Your task to perform on an android device: turn smart compose on in the gmail app Image 0: 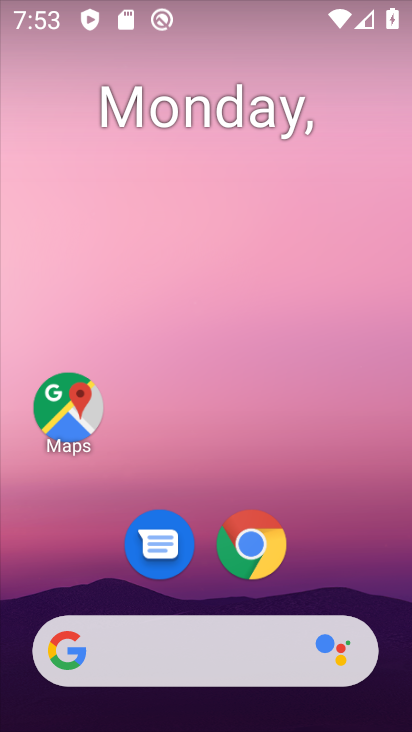
Step 0: drag from (225, 605) to (122, 3)
Your task to perform on an android device: turn smart compose on in the gmail app Image 1: 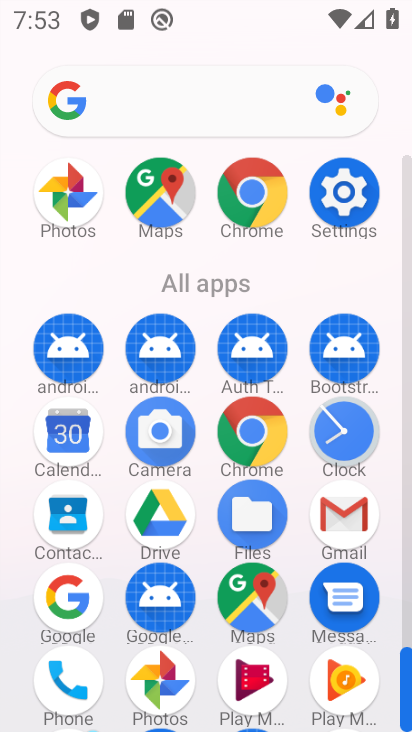
Step 1: click (345, 513)
Your task to perform on an android device: turn smart compose on in the gmail app Image 2: 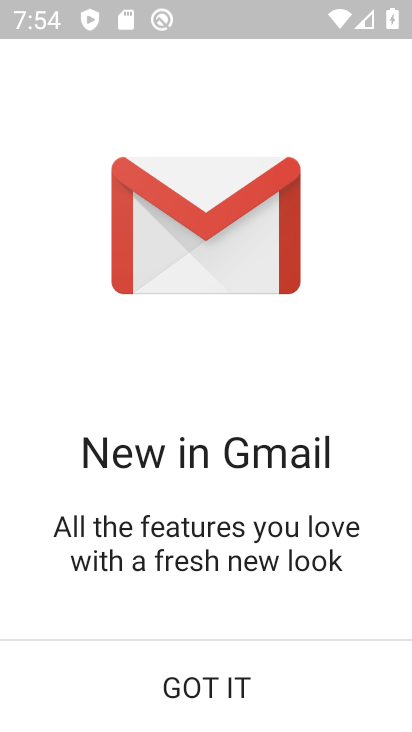
Step 2: click (269, 706)
Your task to perform on an android device: turn smart compose on in the gmail app Image 3: 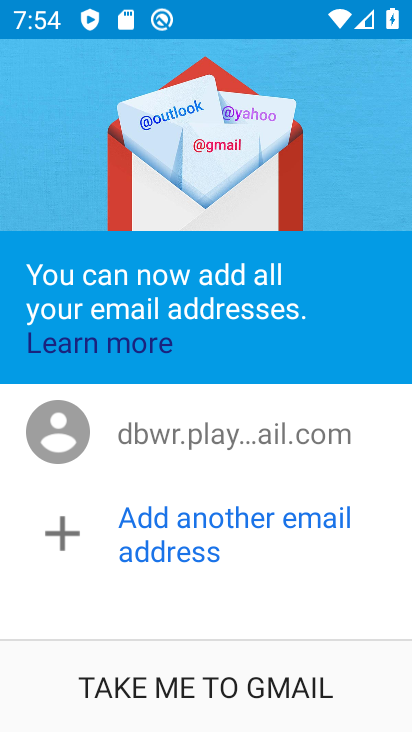
Step 3: click (269, 706)
Your task to perform on an android device: turn smart compose on in the gmail app Image 4: 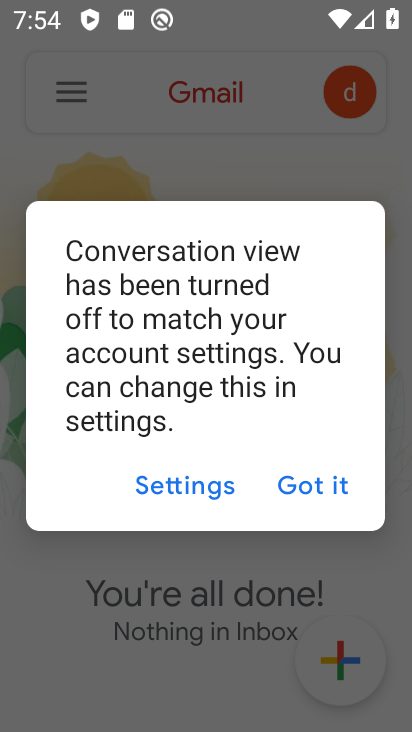
Step 4: click (337, 493)
Your task to perform on an android device: turn smart compose on in the gmail app Image 5: 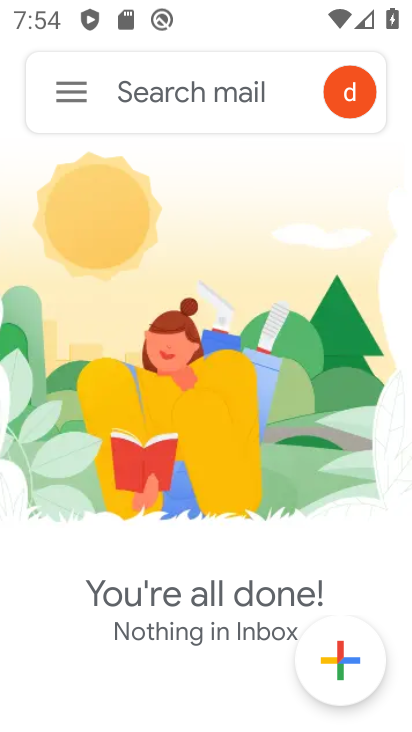
Step 5: click (72, 95)
Your task to perform on an android device: turn smart compose on in the gmail app Image 6: 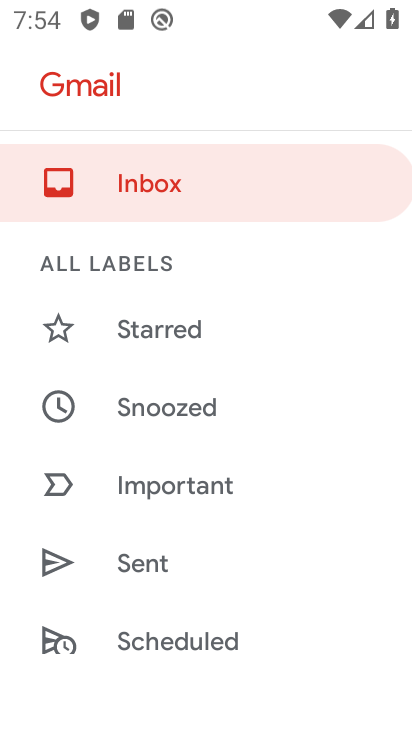
Step 6: drag from (121, 519) to (59, 3)
Your task to perform on an android device: turn smart compose on in the gmail app Image 7: 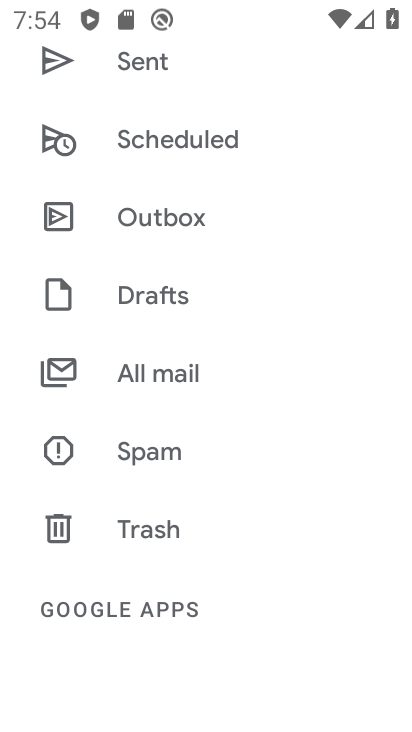
Step 7: drag from (108, 481) to (63, 71)
Your task to perform on an android device: turn smart compose on in the gmail app Image 8: 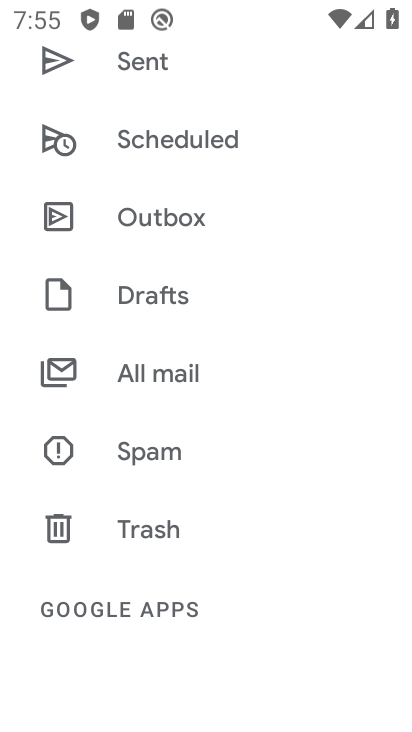
Step 8: drag from (144, 608) to (106, 237)
Your task to perform on an android device: turn smart compose on in the gmail app Image 9: 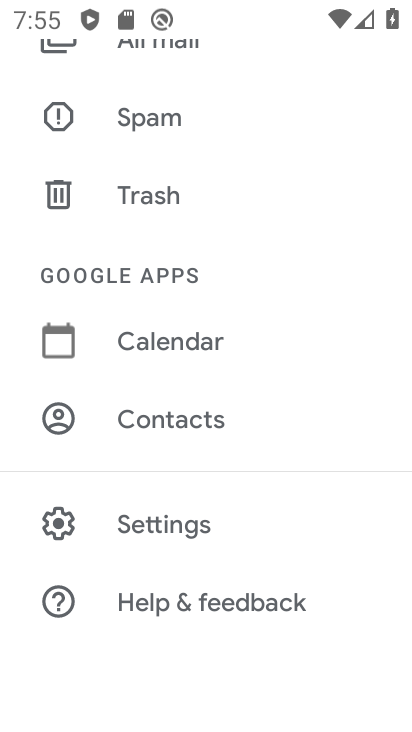
Step 9: drag from (231, 547) to (157, 28)
Your task to perform on an android device: turn smart compose on in the gmail app Image 10: 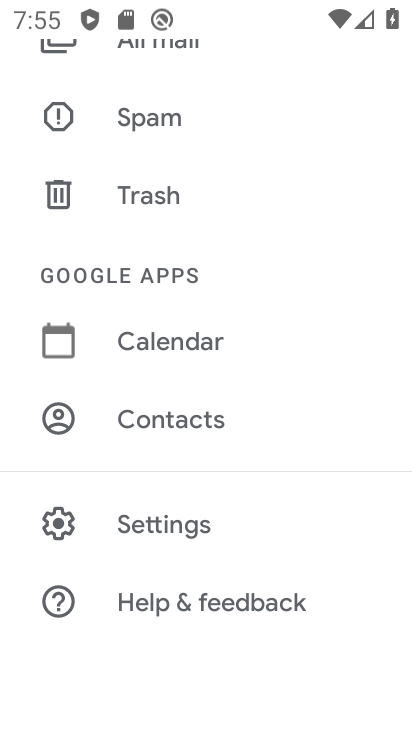
Step 10: click (164, 532)
Your task to perform on an android device: turn smart compose on in the gmail app Image 11: 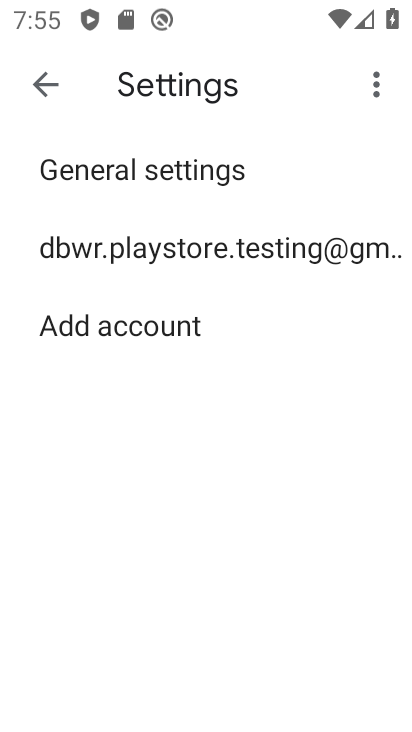
Step 11: click (162, 238)
Your task to perform on an android device: turn smart compose on in the gmail app Image 12: 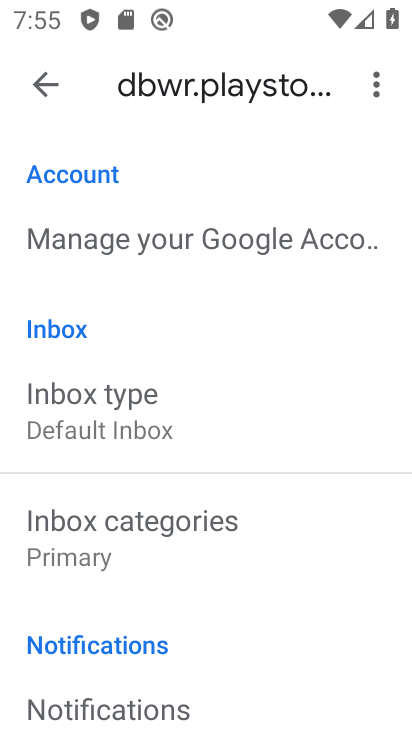
Step 12: task complete